Your task to perform on an android device: see tabs open on other devices in the chrome app Image 0: 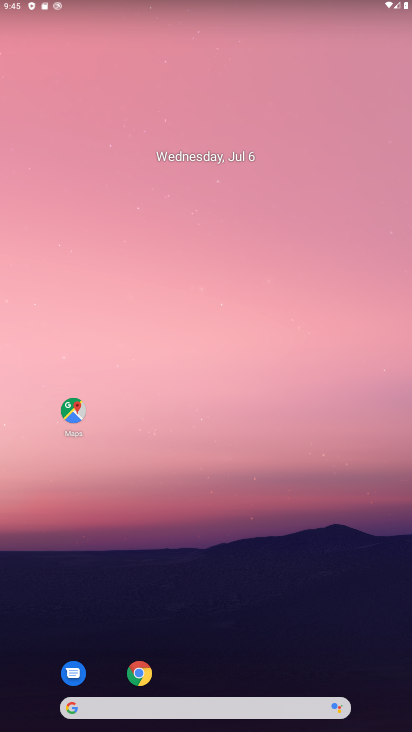
Step 0: click (138, 685)
Your task to perform on an android device: see tabs open on other devices in the chrome app Image 1: 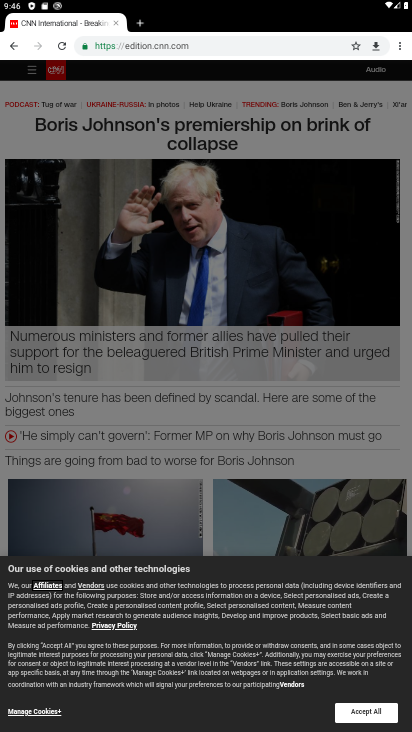
Step 1: click (394, 42)
Your task to perform on an android device: see tabs open on other devices in the chrome app Image 2: 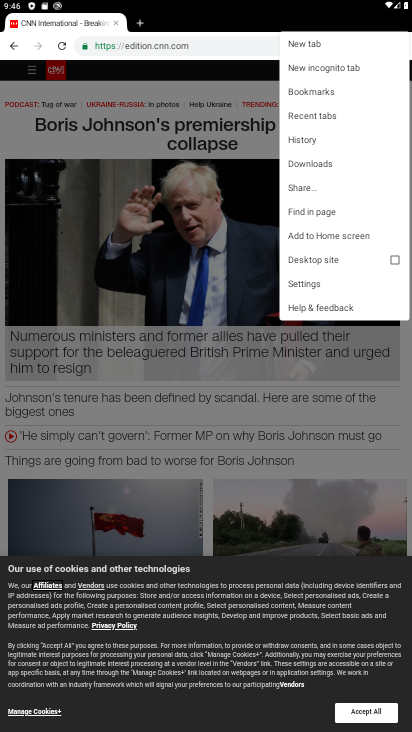
Step 2: click (314, 109)
Your task to perform on an android device: see tabs open on other devices in the chrome app Image 3: 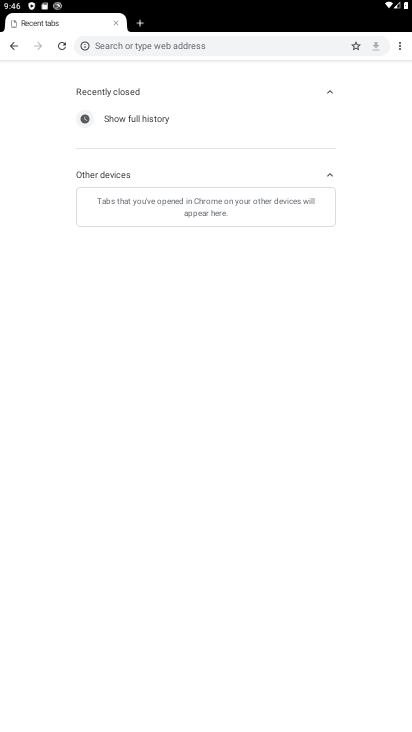
Step 3: task complete